Your task to perform on an android device: change timer sound Image 0: 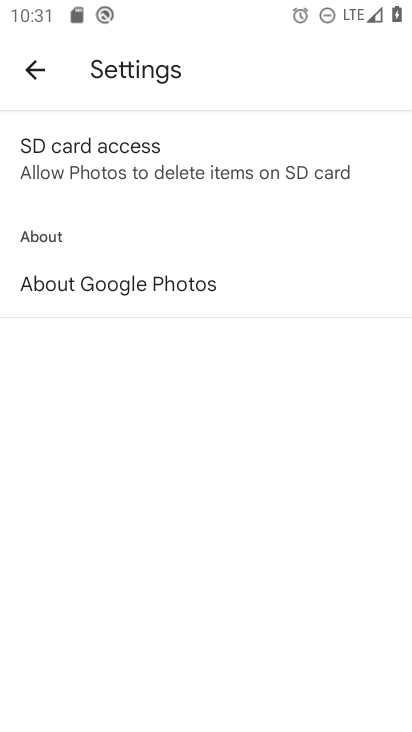
Step 0: press home button
Your task to perform on an android device: change timer sound Image 1: 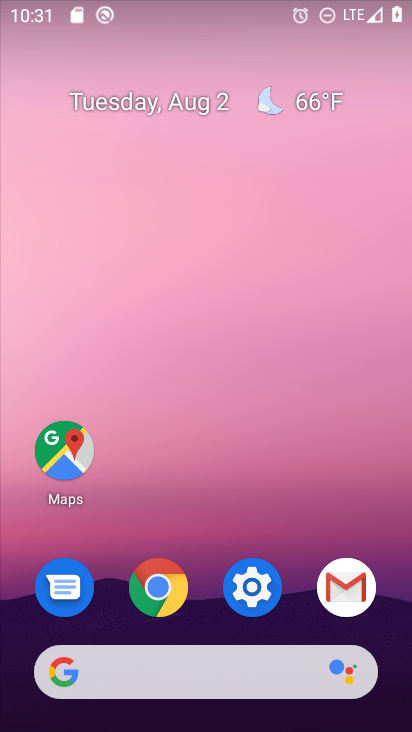
Step 1: drag from (247, 698) to (140, 124)
Your task to perform on an android device: change timer sound Image 2: 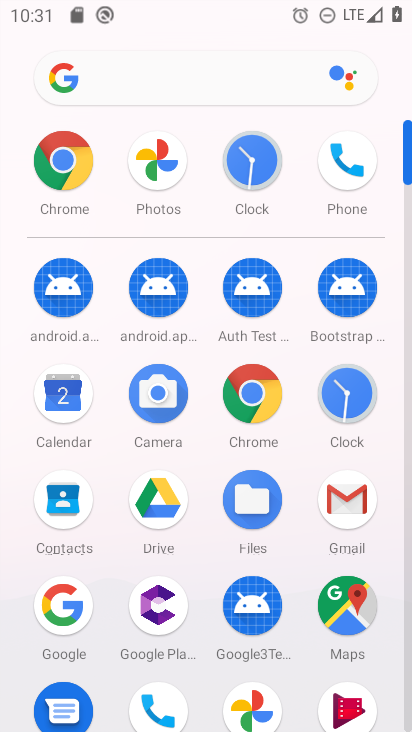
Step 2: click (342, 379)
Your task to perform on an android device: change timer sound Image 3: 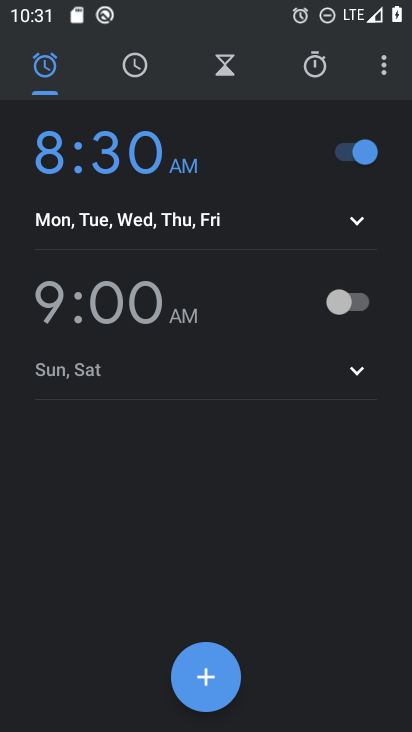
Step 3: click (380, 76)
Your task to perform on an android device: change timer sound Image 4: 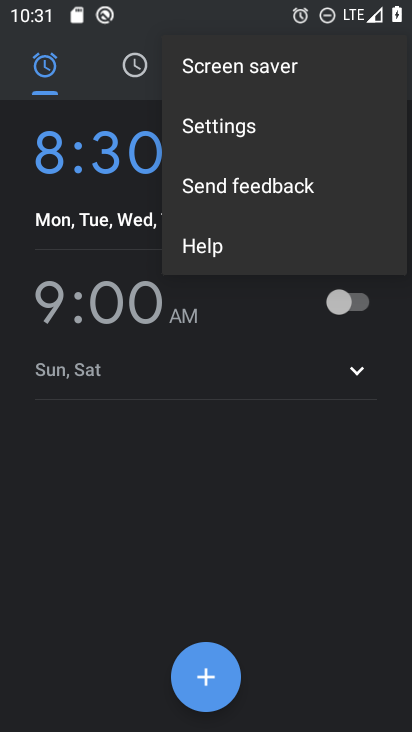
Step 4: click (202, 146)
Your task to perform on an android device: change timer sound Image 5: 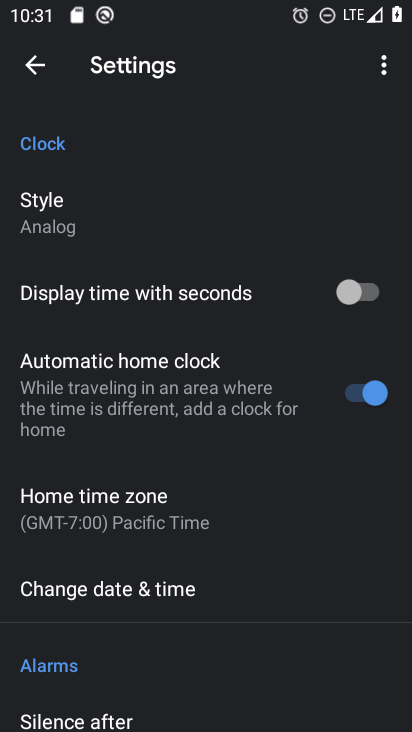
Step 5: drag from (157, 637) to (146, 266)
Your task to perform on an android device: change timer sound Image 6: 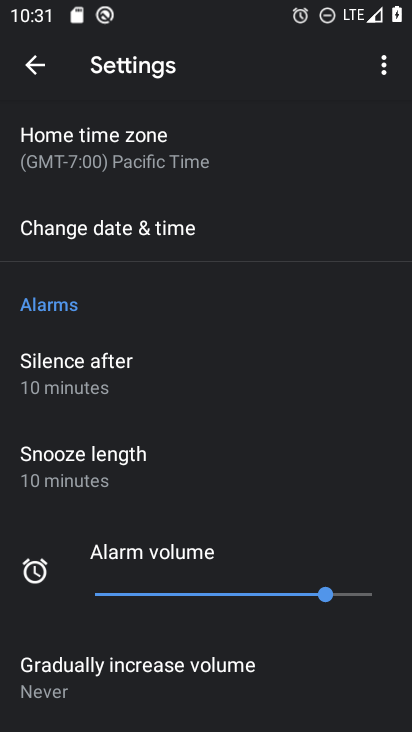
Step 6: drag from (115, 523) to (137, 259)
Your task to perform on an android device: change timer sound Image 7: 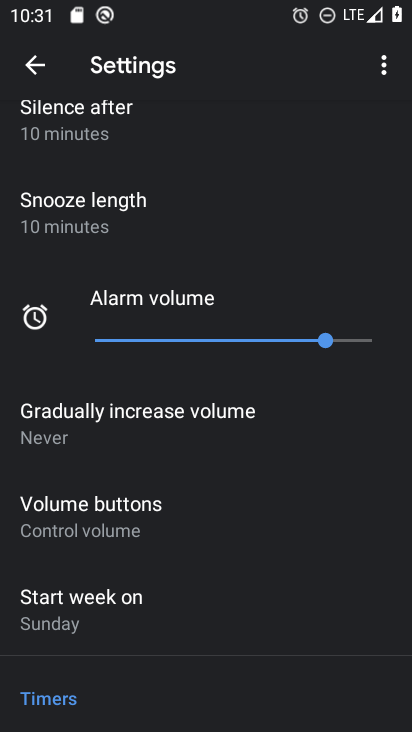
Step 7: drag from (125, 607) to (165, 453)
Your task to perform on an android device: change timer sound Image 8: 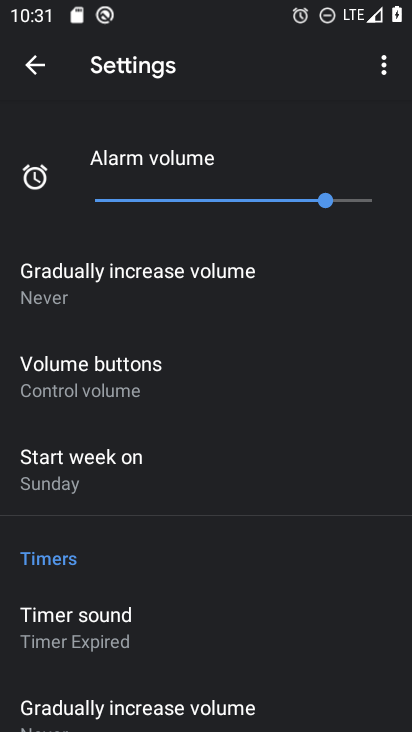
Step 8: click (108, 627)
Your task to perform on an android device: change timer sound Image 9: 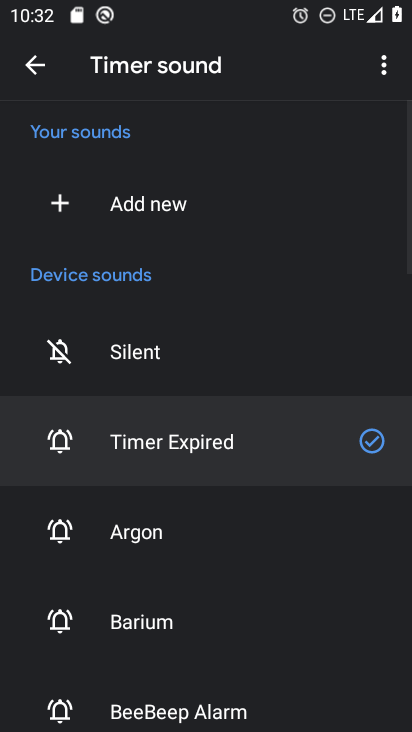
Step 9: click (117, 528)
Your task to perform on an android device: change timer sound Image 10: 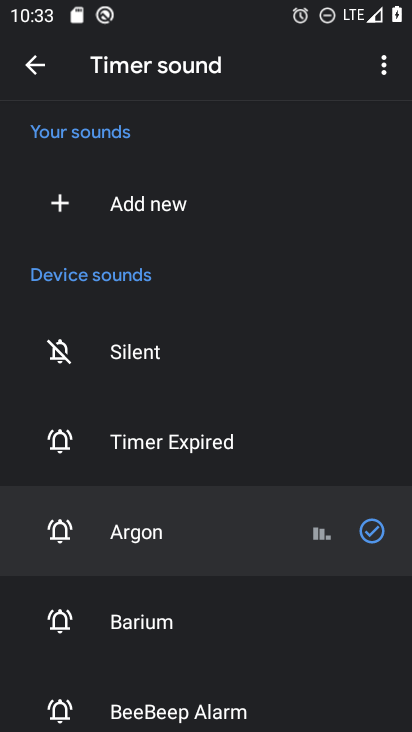
Step 10: task complete